Your task to perform on an android device: install app "Google Sheets" Image 0: 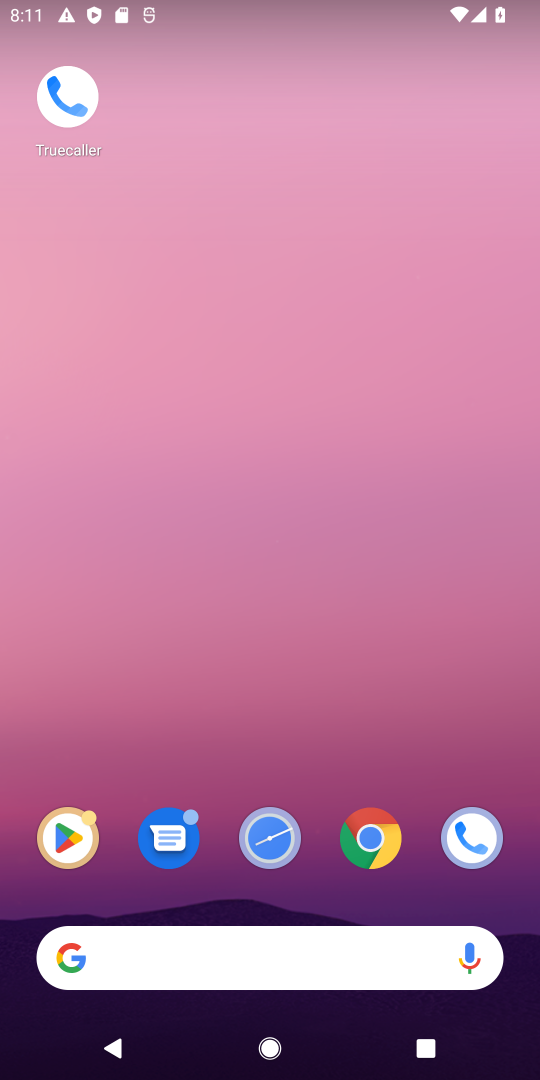
Step 0: drag from (247, 1007) to (387, 23)
Your task to perform on an android device: install app "Google Sheets" Image 1: 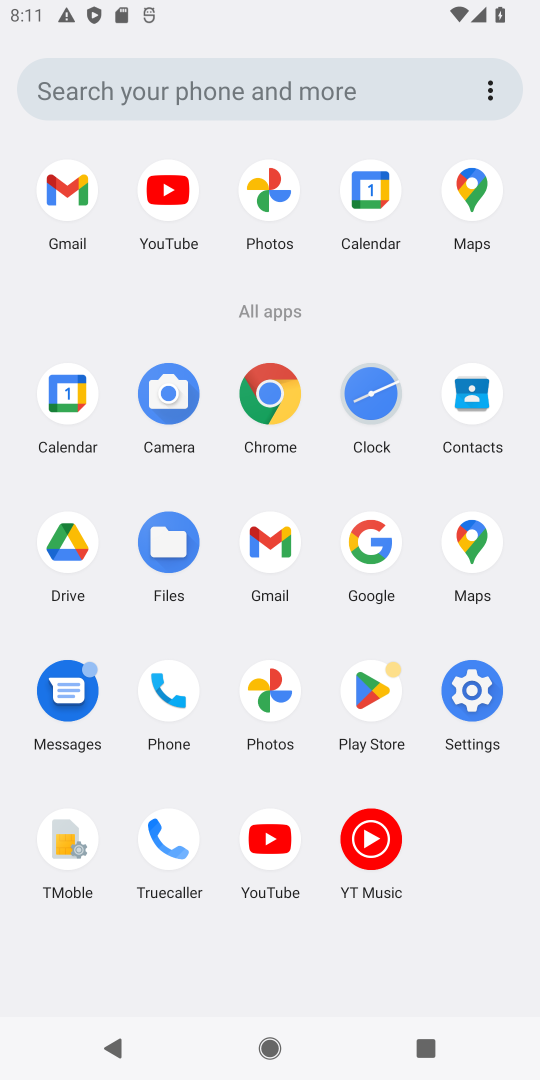
Step 1: click (353, 713)
Your task to perform on an android device: install app "Google Sheets" Image 2: 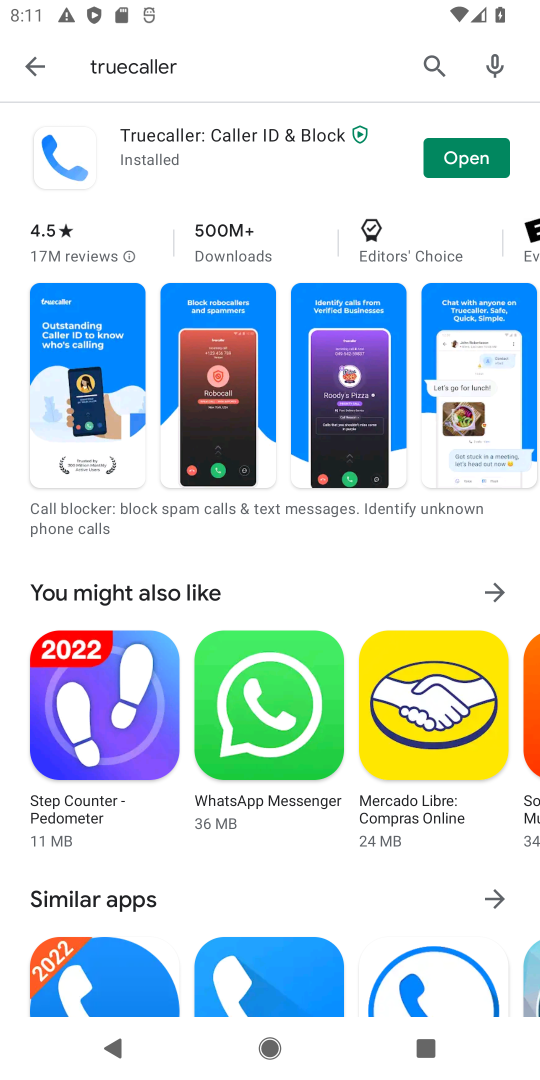
Step 2: click (439, 73)
Your task to perform on an android device: install app "Google Sheets" Image 3: 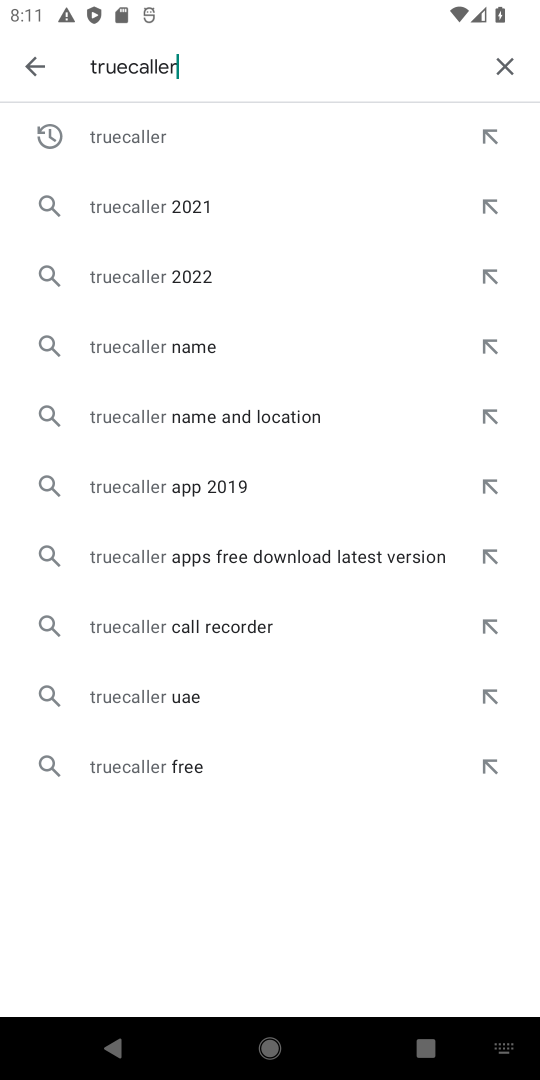
Step 3: click (503, 61)
Your task to perform on an android device: install app "Google Sheets" Image 4: 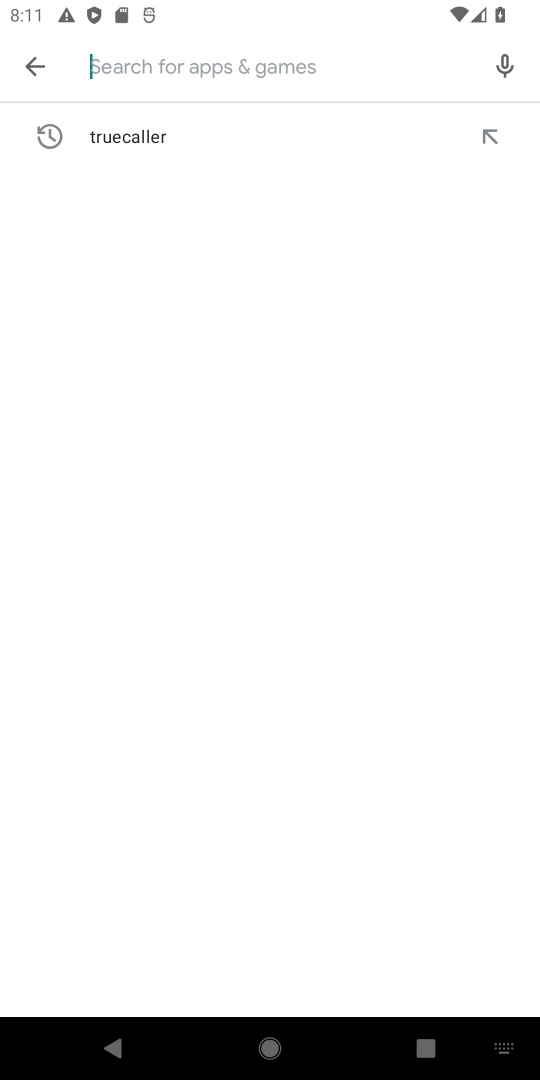
Step 4: type "Google sheets"
Your task to perform on an android device: install app "Google Sheets" Image 5: 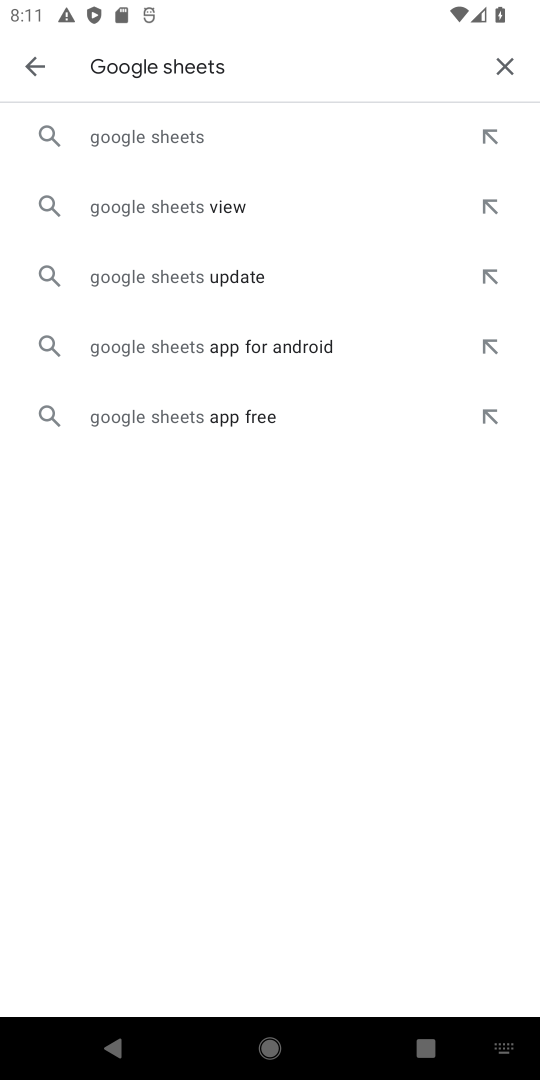
Step 5: click (301, 160)
Your task to perform on an android device: install app "Google Sheets" Image 6: 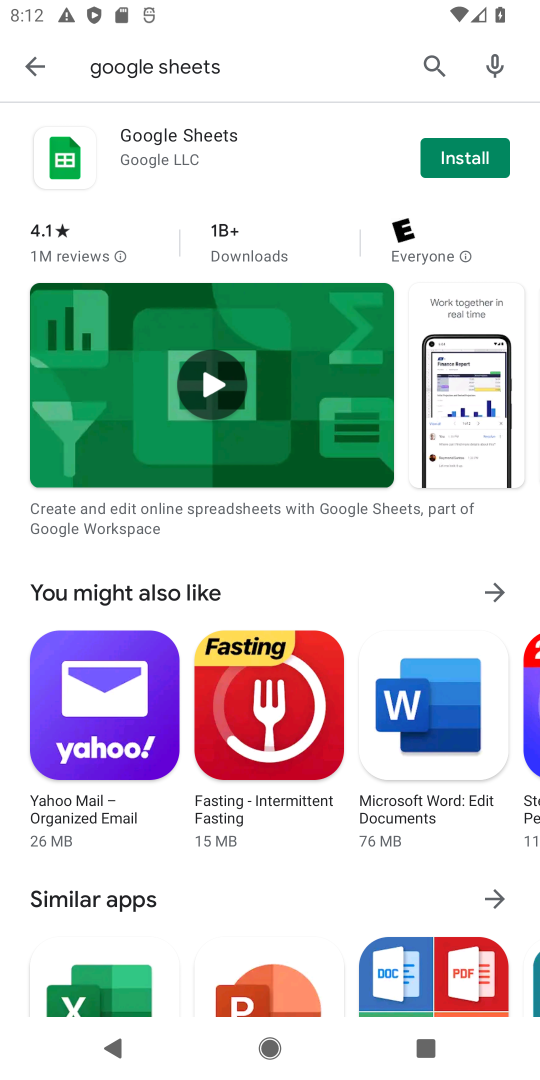
Step 6: click (475, 160)
Your task to perform on an android device: install app "Google Sheets" Image 7: 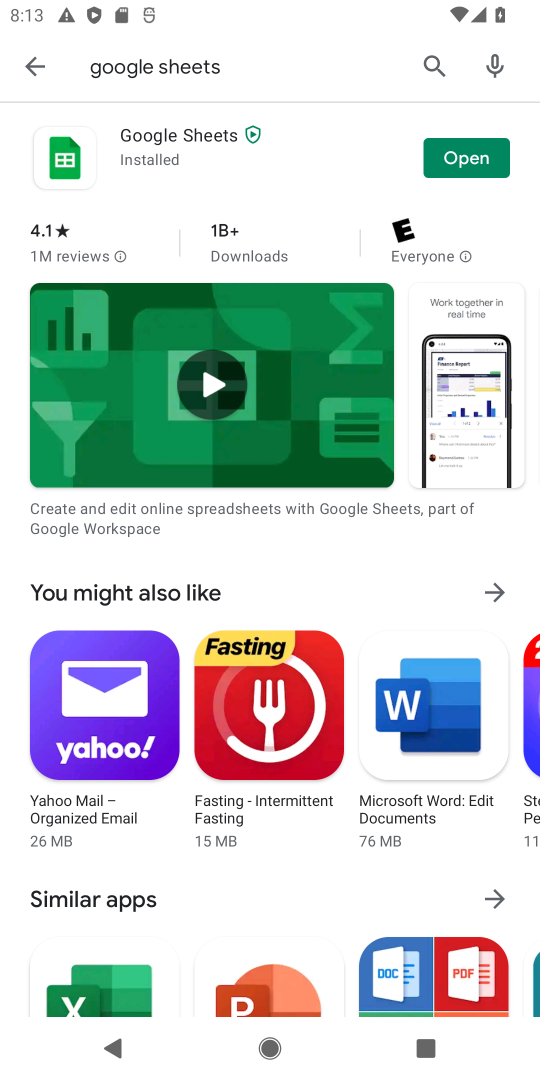
Step 7: task complete